Your task to perform on an android device: Show me the alarms in the clock app Image 0: 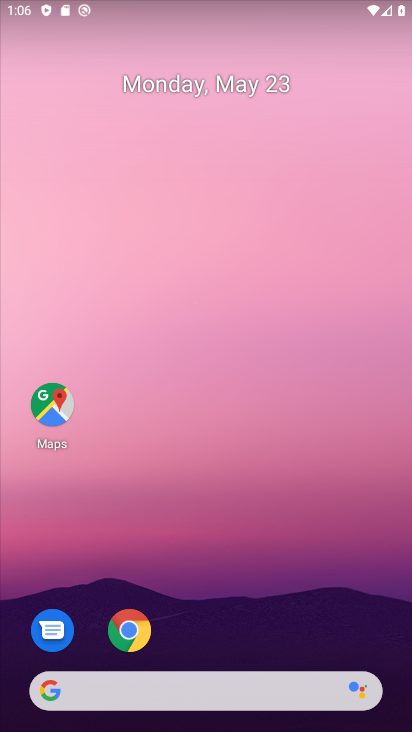
Step 0: drag from (210, 609) to (237, 99)
Your task to perform on an android device: Show me the alarms in the clock app Image 1: 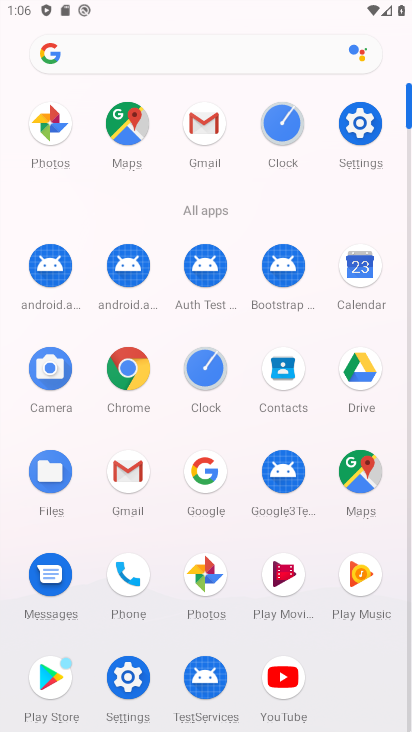
Step 1: click (216, 378)
Your task to perform on an android device: Show me the alarms in the clock app Image 2: 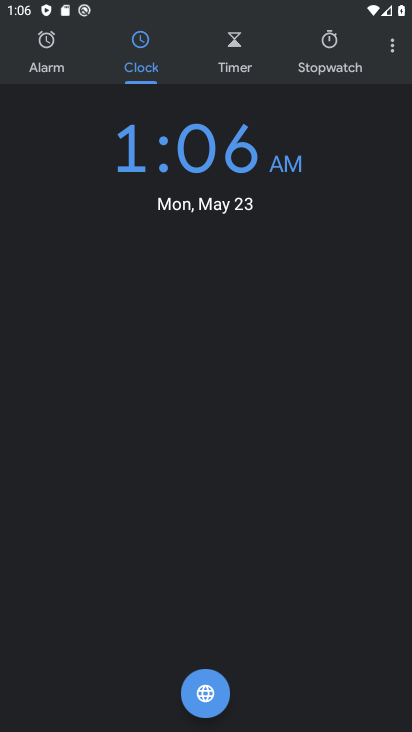
Step 2: click (49, 50)
Your task to perform on an android device: Show me the alarms in the clock app Image 3: 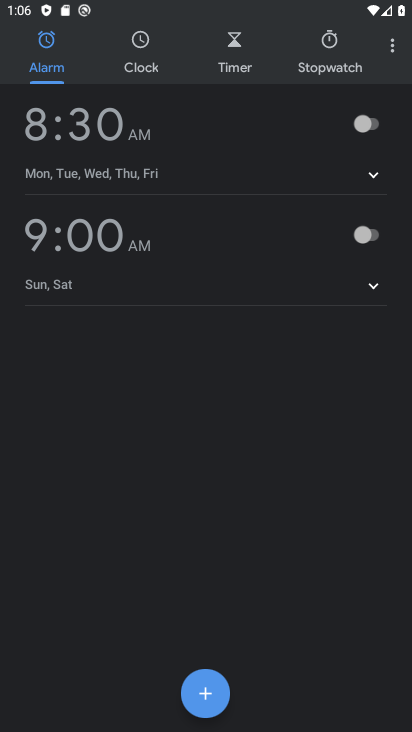
Step 3: task complete